Your task to perform on an android device: see tabs open on other devices in the chrome app Image 0: 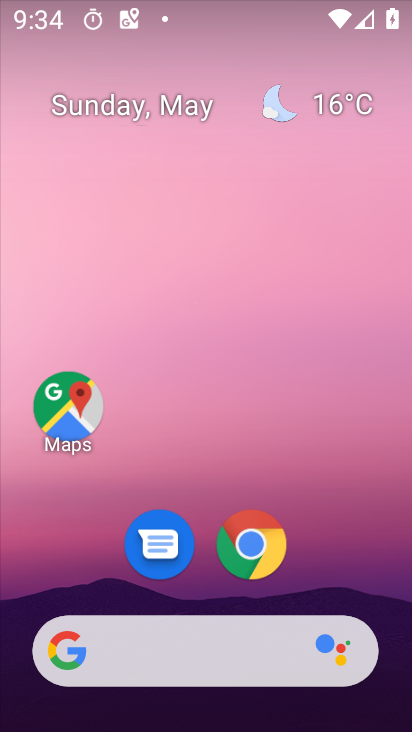
Step 0: drag from (314, 583) to (300, 72)
Your task to perform on an android device: see tabs open on other devices in the chrome app Image 1: 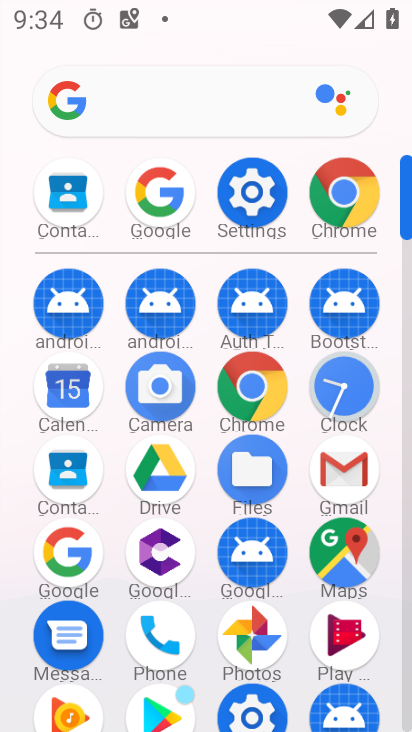
Step 1: click (337, 225)
Your task to perform on an android device: see tabs open on other devices in the chrome app Image 2: 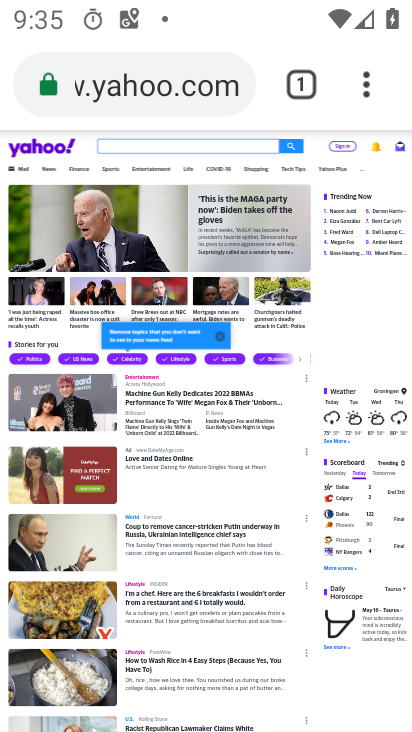
Step 2: click (305, 88)
Your task to perform on an android device: see tabs open on other devices in the chrome app Image 3: 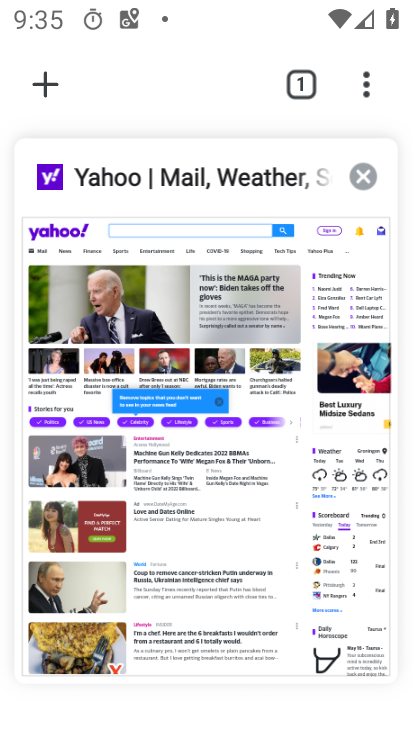
Step 3: click (48, 86)
Your task to perform on an android device: see tabs open on other devices in the chrome app Image 4: 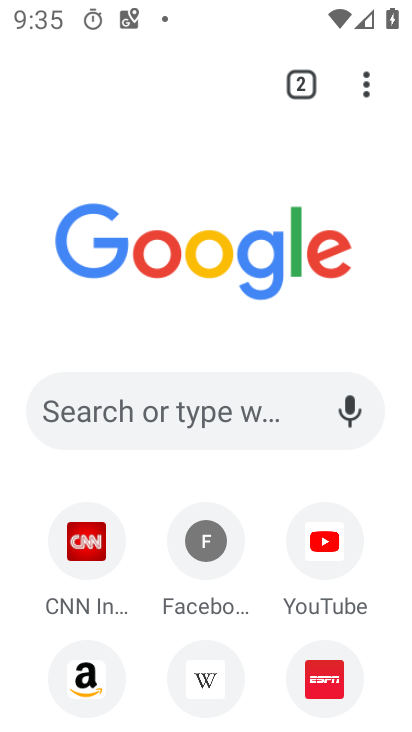
Step 4: task complete